Your task to perform on an android device: open sync settings in chrome Image 0: 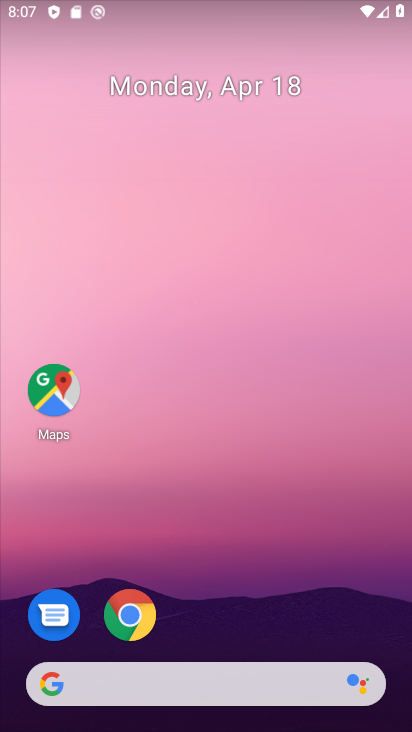
Step 0: click (138, 616)
Your task to perform on an android device: open sync settings in chrome Image 1: 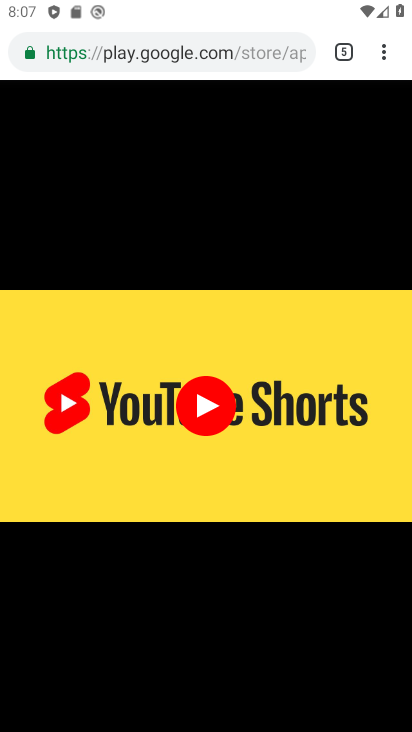
Step 1: click (381, 49)
Your task to perform on an android device: open sync settings in chrome Image 2: 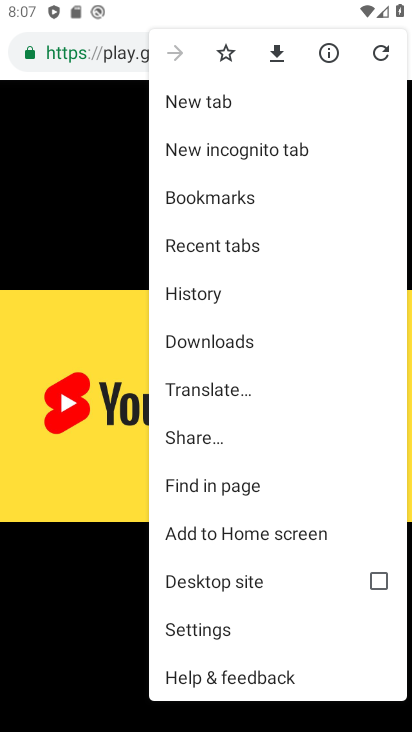
Step 2: click (234, 629)
Your task to perform on an android device: open sync settings in chrome Image 3: 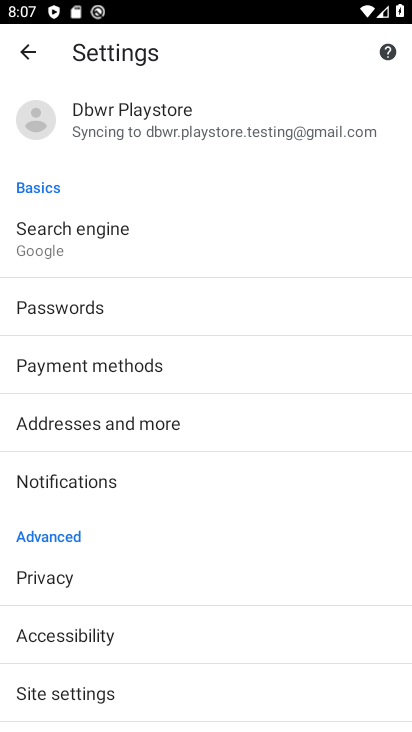
Step 3: click (280, 115)
Your task to perform on an android device: open sync settings in chrome Image 4: 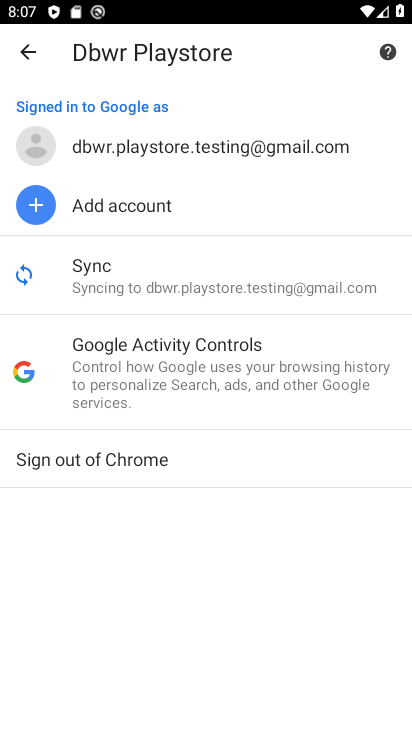
Step 4: click (207, 279)
Your task to perform on an android device: open sync settings in chrome Image 5: 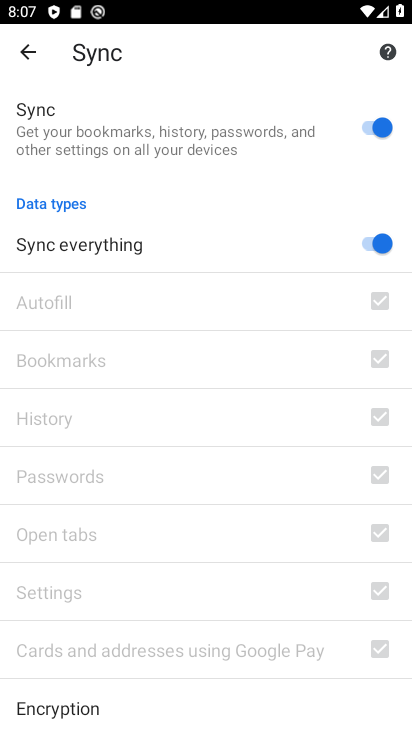
Step 5: task complete